Your task to perform on an android device: Go to network settings Image 0: 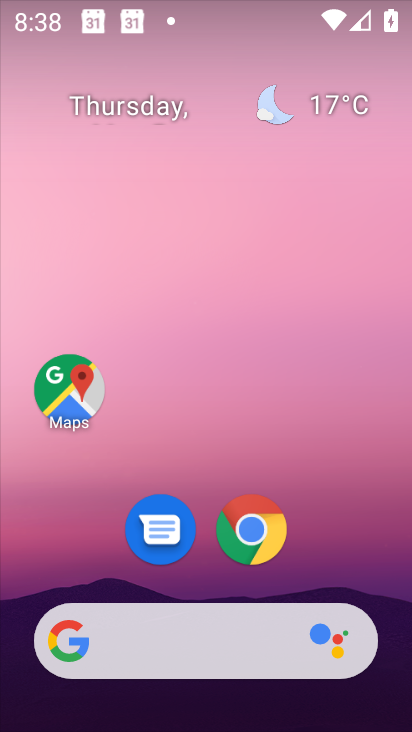
Step 0: drag from (333, 509) to (246, 59)
Your task to perform on an android device: Go to network settings Image 1: 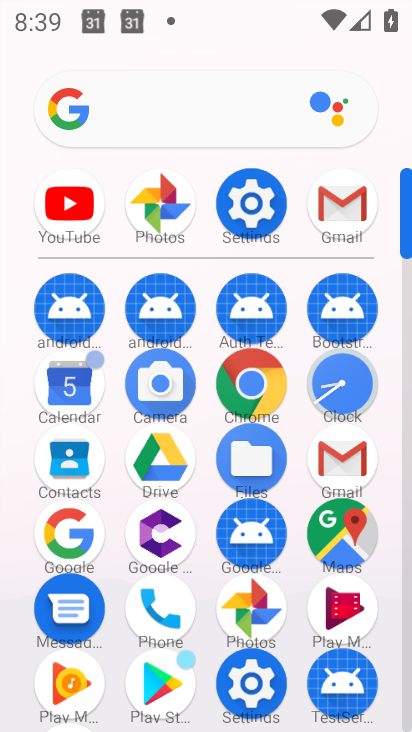
Step 1: click (248, 212)
Your task to perform on an android device: Go to network settings Image 2: 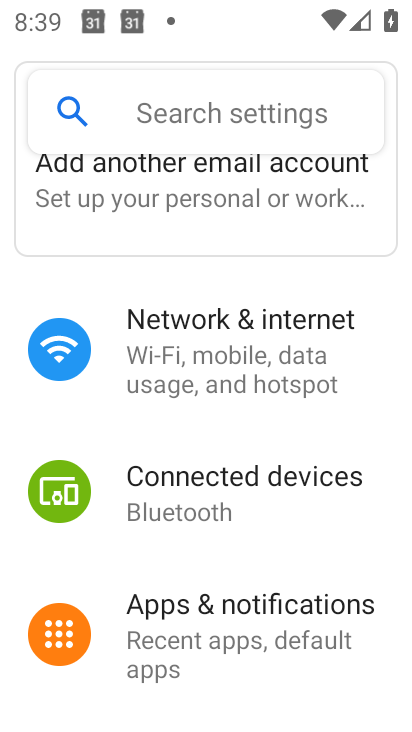
Step 2: task complete